Your task to perform on an android device: toggle show notifications on the lock screen Image 0: 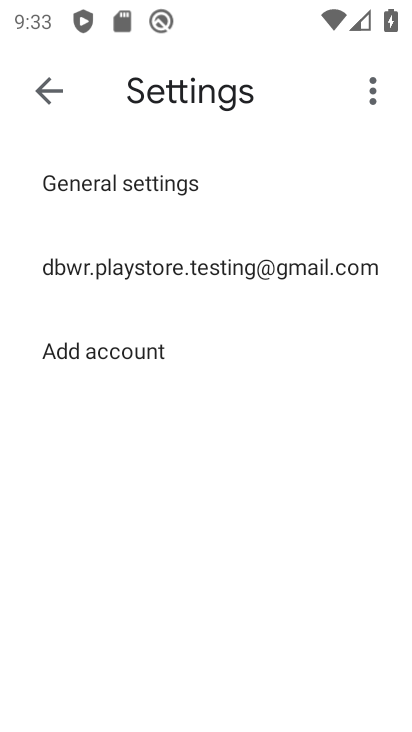
Step 0: press home button
Your task to perform on an android device: toggle show notifications on the lock screen Image 1: 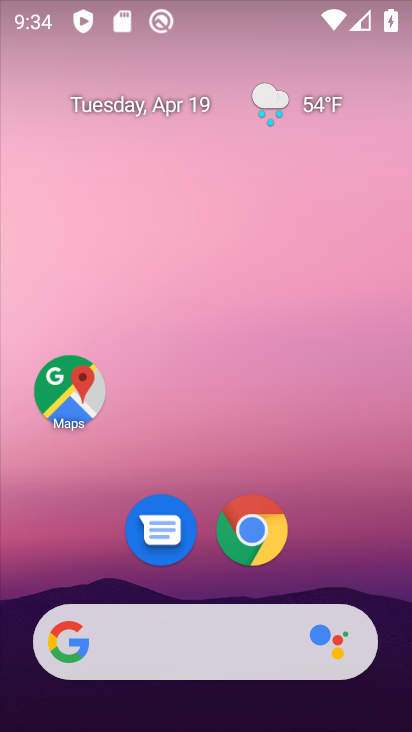
Step 1: drag from (205, 490) to (243, 64)
Your task to perform on an android device: toggle show notifications on the lock screen Image 2: 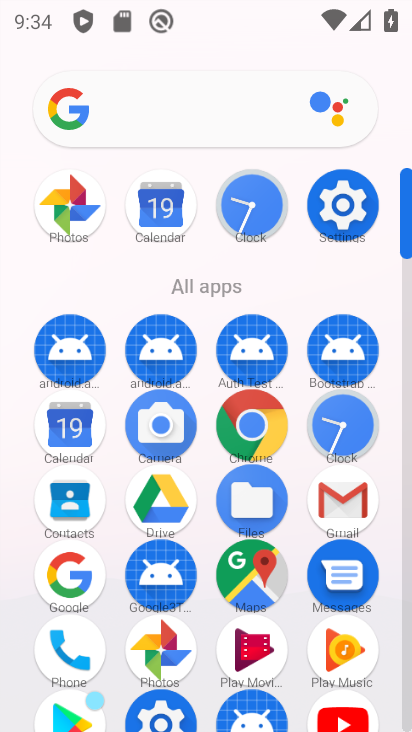
Step 2: click (342, 200)
Your task to perform on an android device: toggle show notifications on the lock screen Image 3: 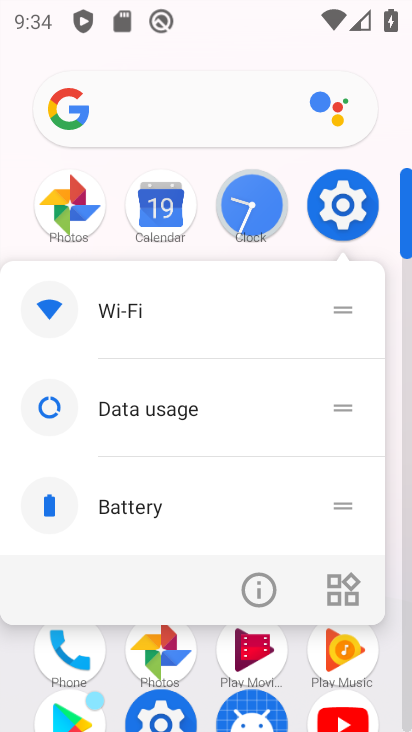
Step 3: click (343, 208)
Your task to perform on an android device: toggle show notifications on the lock screen Image 4: 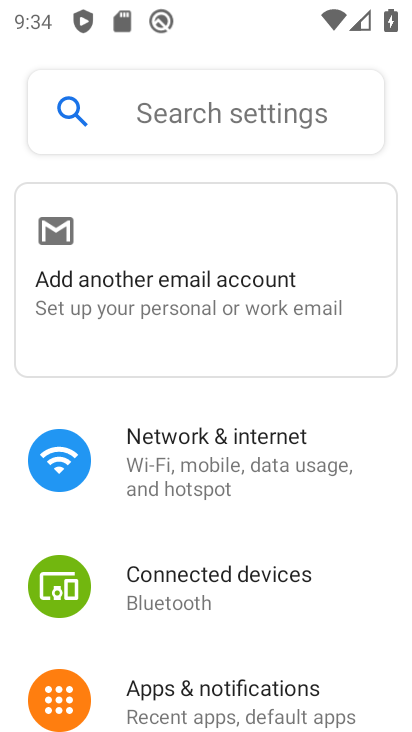
Step 4: drag from (250, 601) to (239, 401)
Your task to perform on an android device: toggle show notifications on the lock screen Image 5: 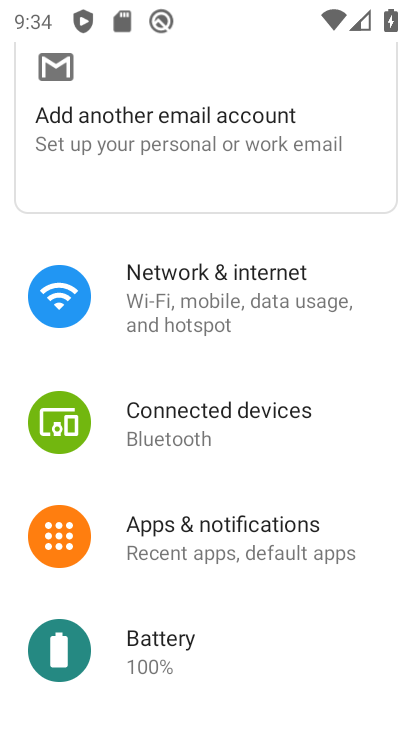
Step 5: click (220, 530)
Your task to perform on an android device: toggle show notifications on the lock screen Image 6: 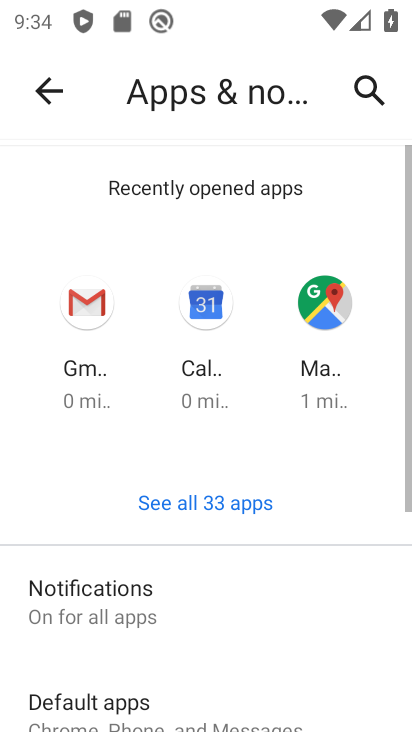
Step 6: click (146, 601)
Your task to perform on an android device: toggle show notifications on the lock screen Image 7: 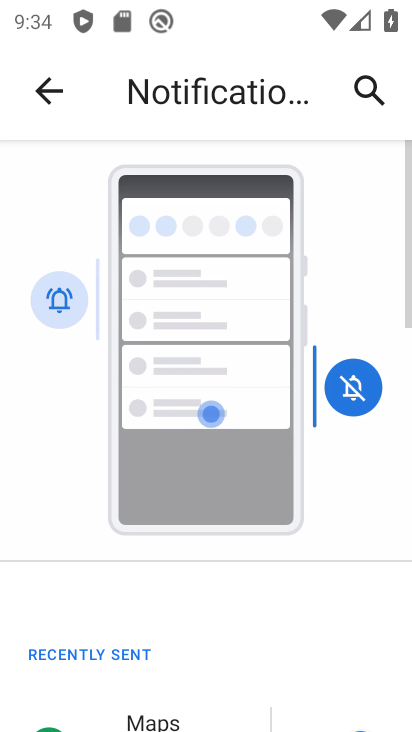
Step 7: drag from (253, 638) to (283, 125)
Your task to perform on an android device: toggle show notifications on the lock screen Image 8: 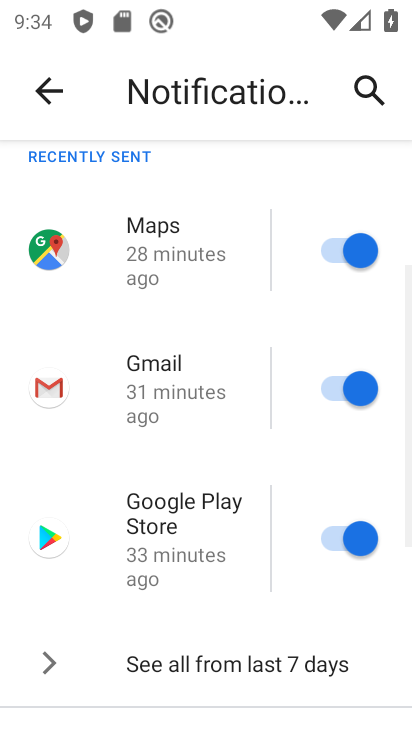
Step 8: drag from (207, 621) to (205, 368)
Your task to perform on an android device: toggle show notifications on the lock screen Image 9: 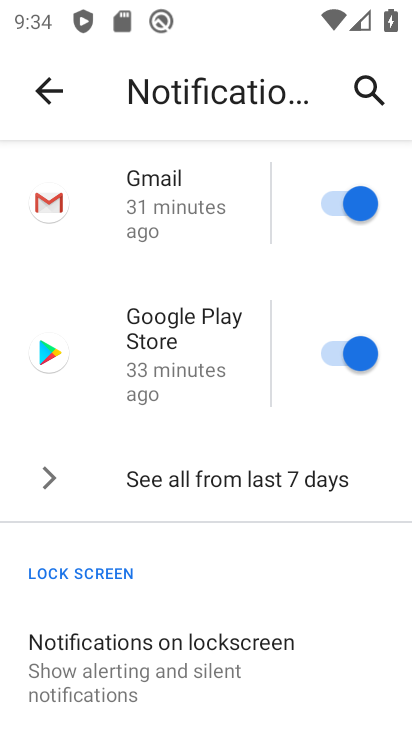
Step 9: click (181, 666)
Your task to perform on an android device: toggle show notifications on the lock screen Image 10: 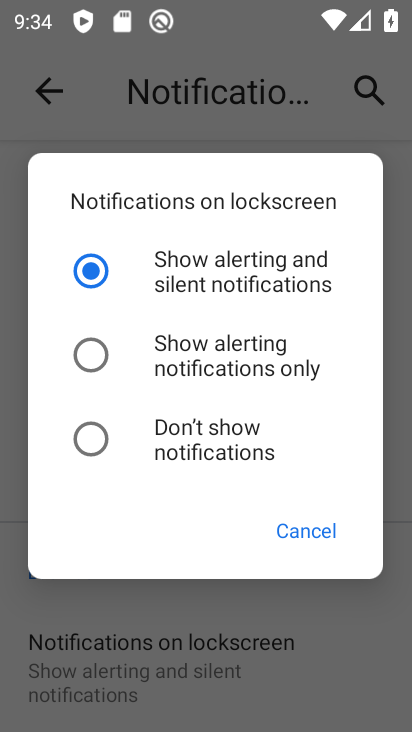
Step 10: click (88, 440)
Your task to perform on an android device: toggle show notifications on the lock screen Image 11: 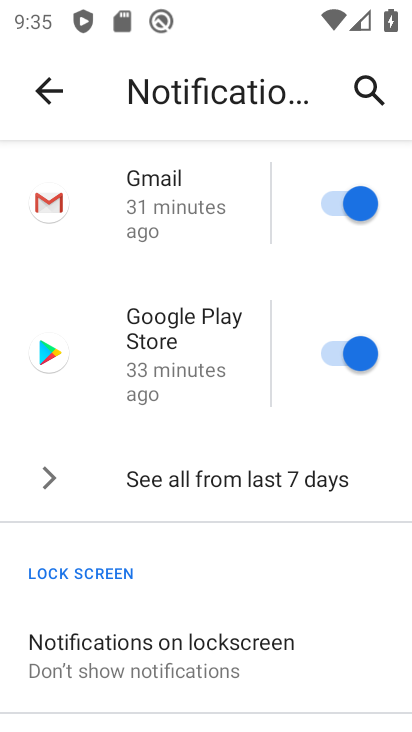
Step 11: task complete